Your task to perform on an android device: turn off improve location accuracy Image 0: 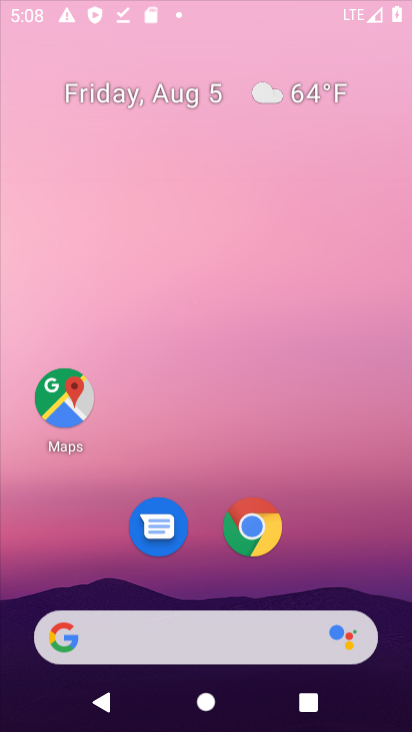
Step 0: click (192, 85)
Your task to perform on an android device: turn off improve location accuracy Image 1: 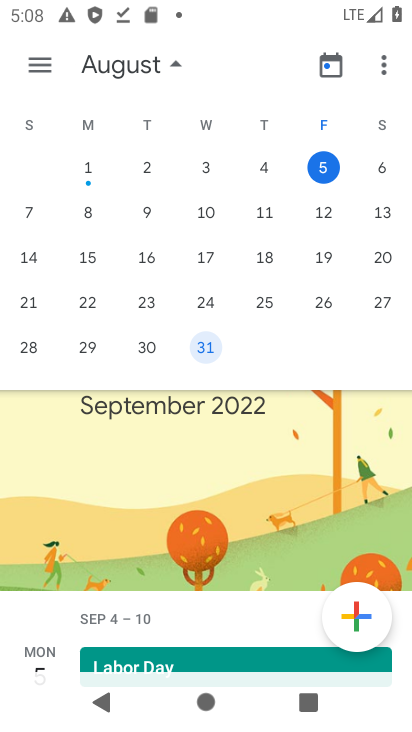
Step 1: drag from (235, 571) to (272, 217)
Your task to perform on an android device: turn off improve location accuracy Image 2: 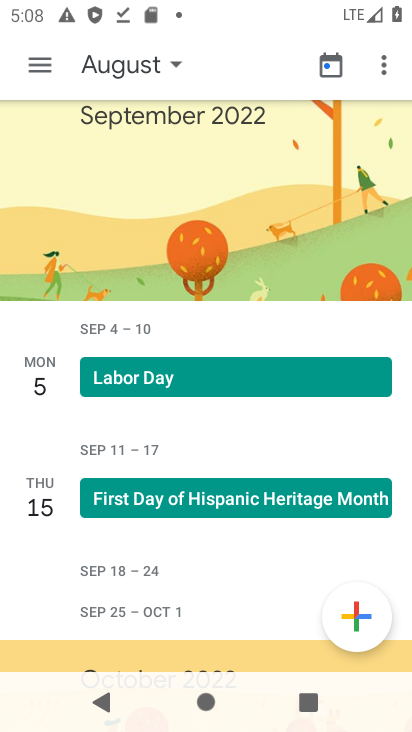
Step 2: click (157, 62)
Your task to perform on an android device: turn off improve location accuracy Image 3: 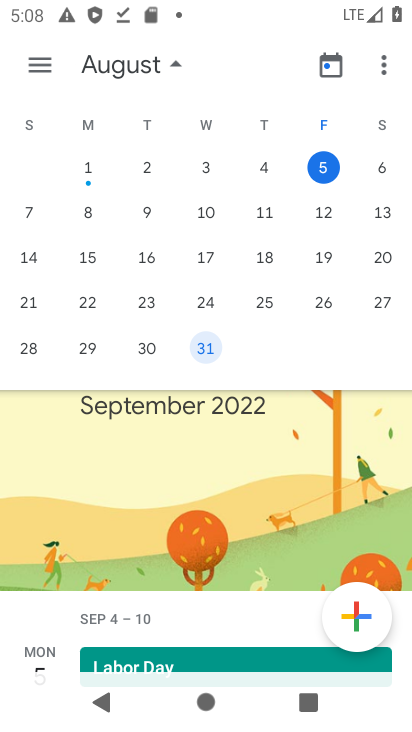
Step 3: click (30, 66)
Your task to perform on an android device: turn off improve location accuracy Image 4: 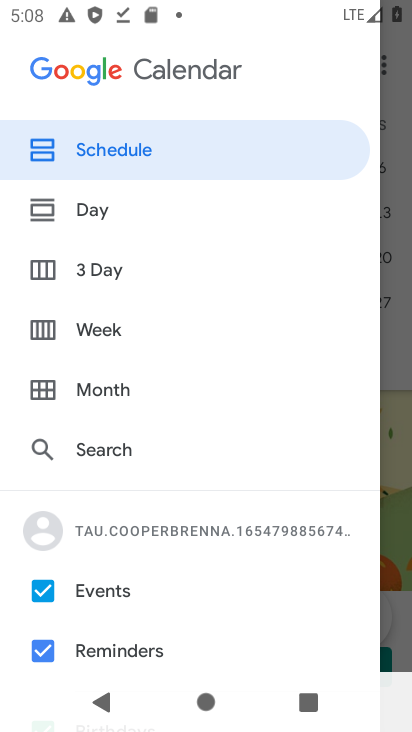
Step 4: press home button
Your task to perform on an android device: turn off improve location accuracy Image 5: 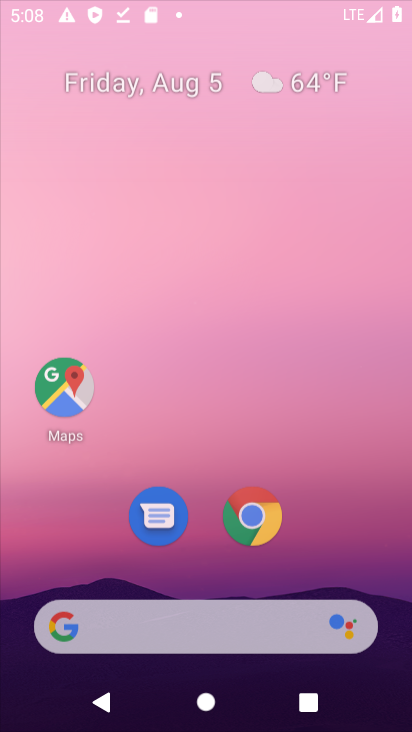
Step 5: drag from (212, 630) to (241, 207)
Your task to perform on an android device: turn off improve location accuracy Image 6: 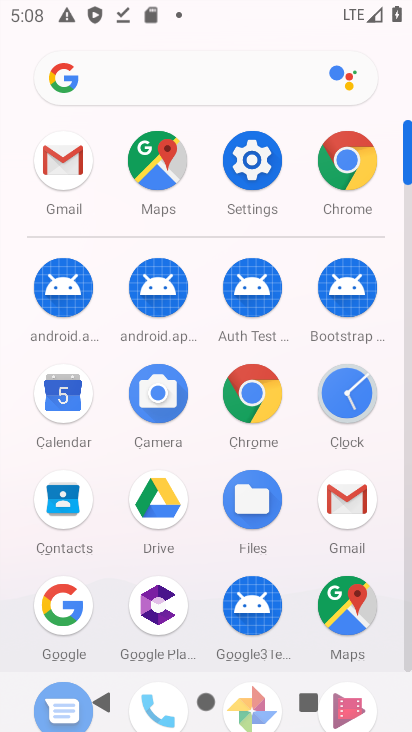
Step 6: click (266, 150)
Your task to perform on an android device: turn off improve location accuracy Image 7: 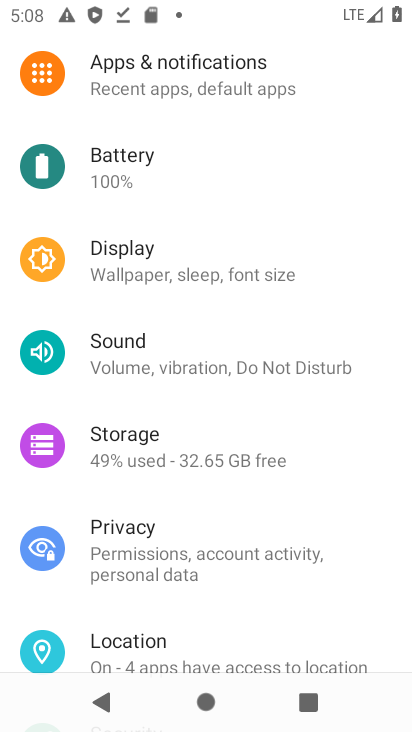
Step 7: drag from (177, 551) to (220, 130)
Your task to perform on an android device: turn off improve location accuracy Image 8: 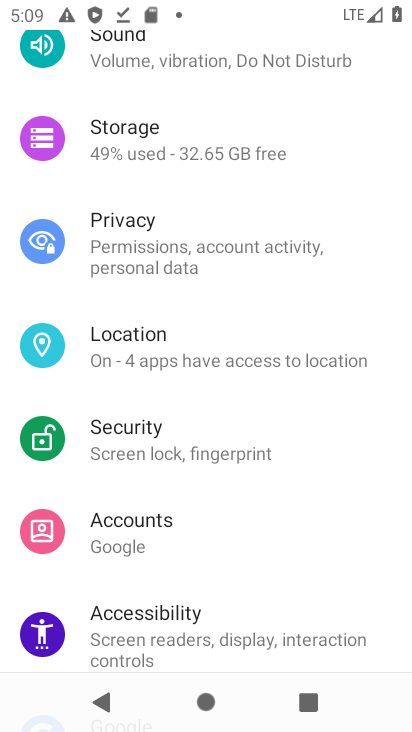
Step 8: click (163, 345)
Your task to perform on an android device: turn off improve location accuracy Image 9: 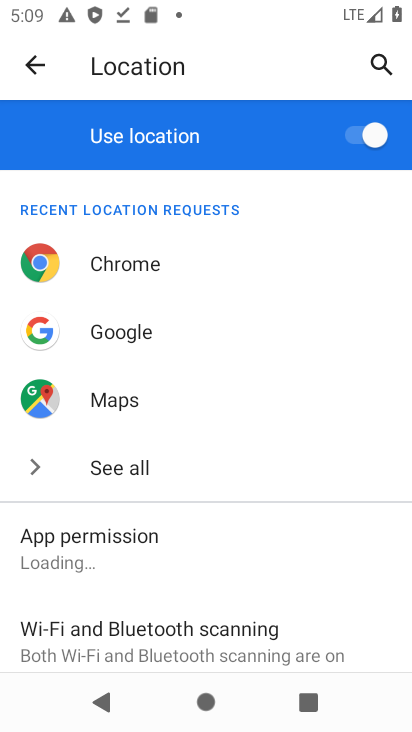
Step 9: drag from (139, 610) to (223, 233)
Your task to perform on an android device: turn off improve location accuracy Image 10: 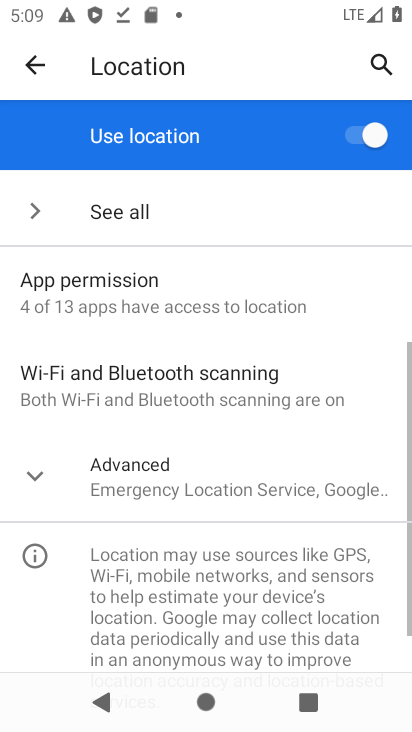
Step 10: click (156, 495)
Your task to perform on an android device: turn off improve location accuracy Image 11: 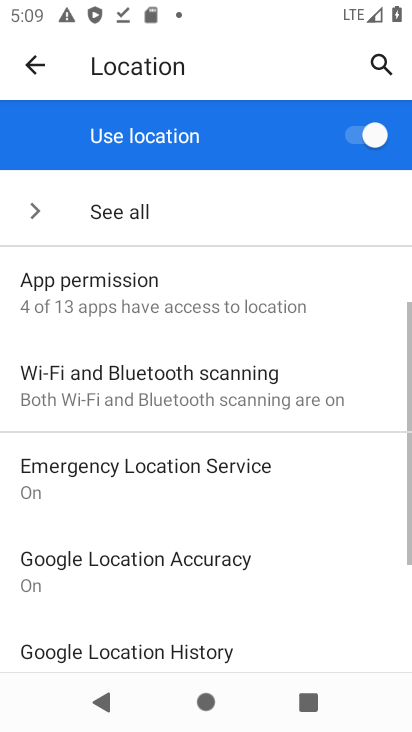
Step 11: drag from (161, 480) to (178, 175)
Your task to perform on an android device: turn off improve location accuracy Image 12: 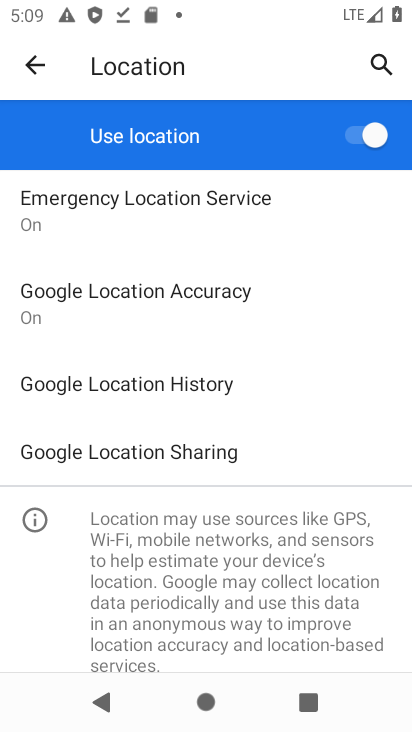
Step 12: click (180, 296)
Your task to perform on an android device: turn off improve location accuracy Image 13: 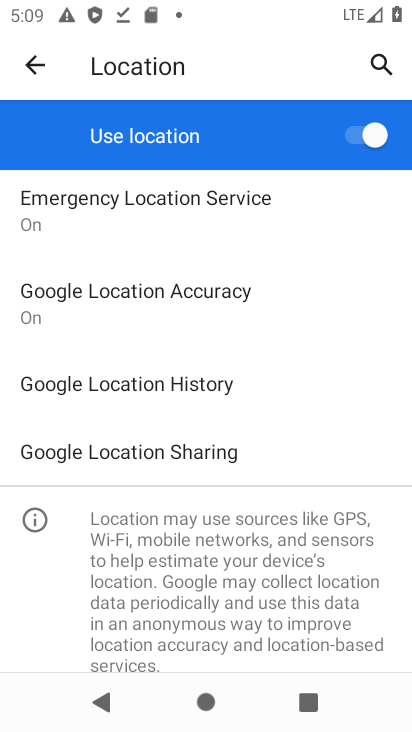
Step 13: click (180, 296)
Your task to perform on an android device: turn off improve location accuracy Image 14: 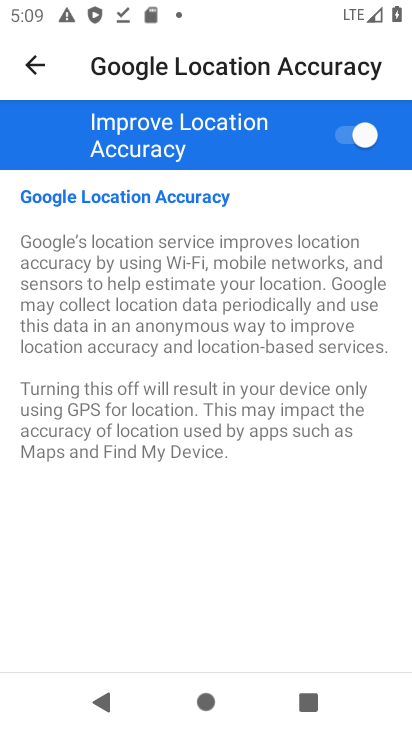
Step 14: click (359, 124)
Your task to perform on an android device: turn off improve location accuracy Image 15: 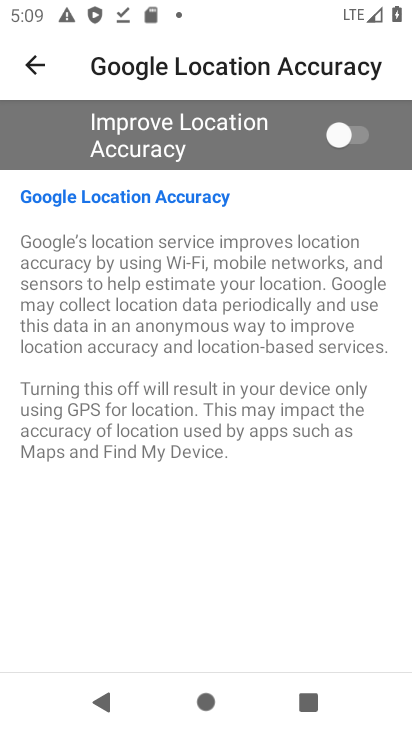
Step 15: task complete